Your task to perform on an android device: clear history in the chrome app Image 0: 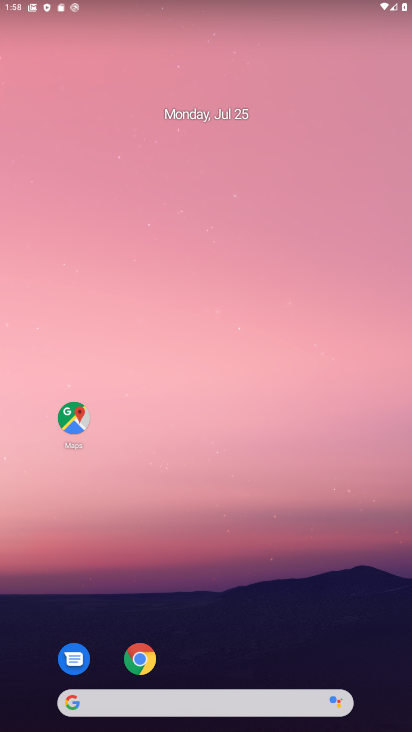
Step 0: drag from (173, 681) to (173, 58)
Your task to perform on an android device: clear history in the chrome app Image 1: 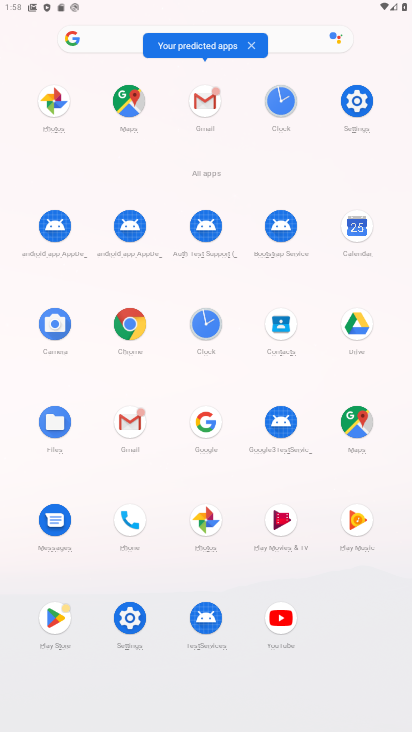
Step 1: click (129, 329)
Your task to perform on an android device: clear history in the chrome app Image 2: 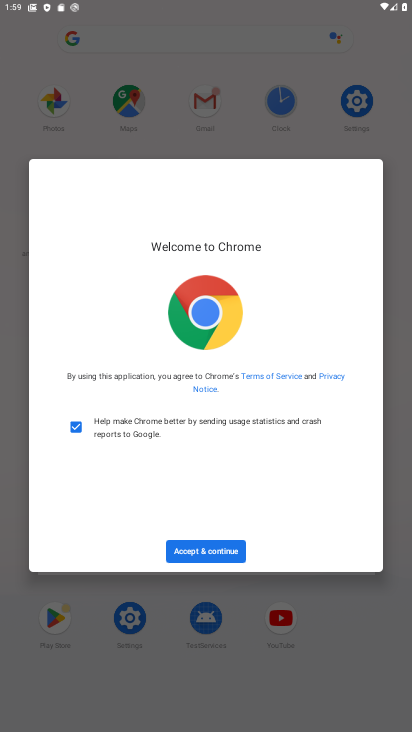
Step 2: click (226, 551)
Your task to perform on an android device: clear history in the chrome app Image 3: 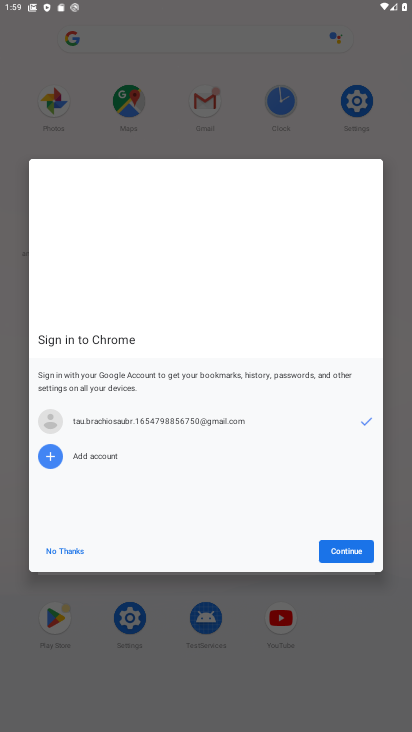
Step 3: click (347, 551)
Your task to perform on an android device: clear history in the chrome app Image 4: 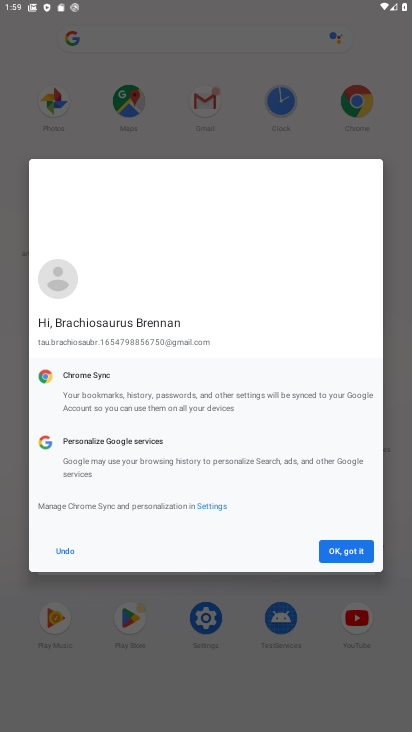
Step 4: click (361, 543)
Your task to perform on an android device: clear history in the chrome app Image 5: 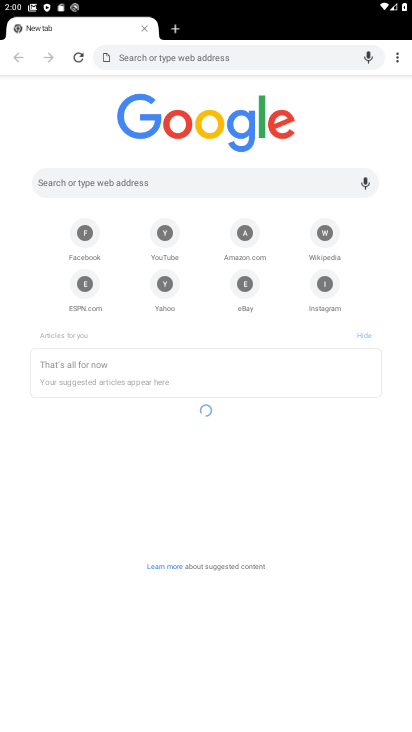
Step 5: click (402, 58)
Your task to perform on an android device: clear history in the chrome app Image 6: 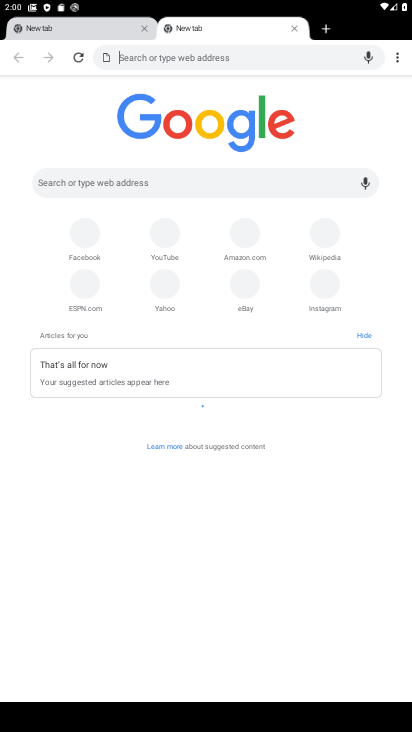
Step 6: click (399, 55)
Your task to perform on an android device: clear history in the chrome app Image 7: 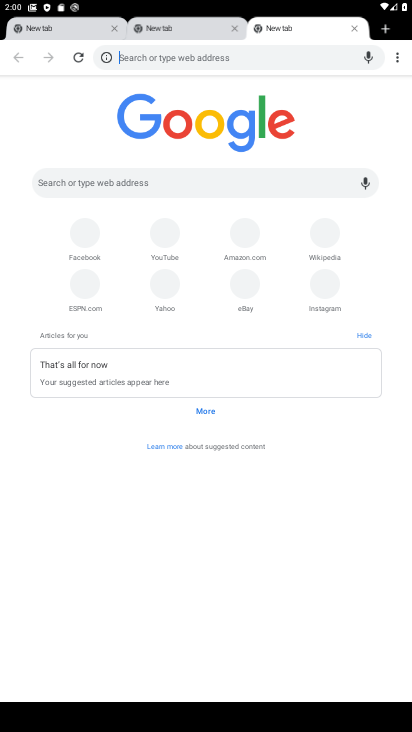
Step 7: click (394, 52)
Your task to perform on an android device: clear history in the chrome app Image 8: 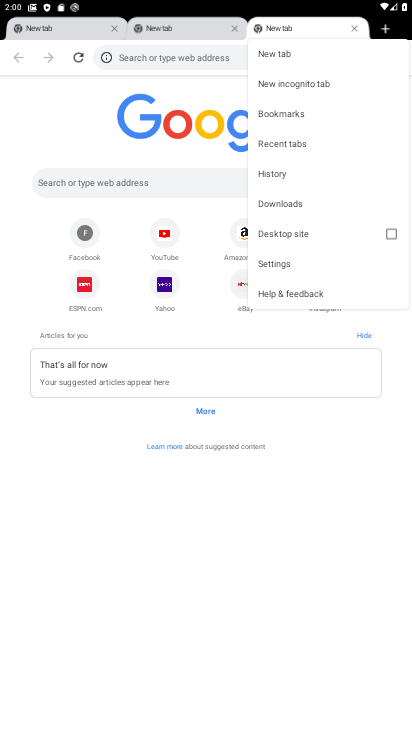
Step 8: click (286, 262)
Your task to perform on an android device: clear history in the chrome app Image 9: 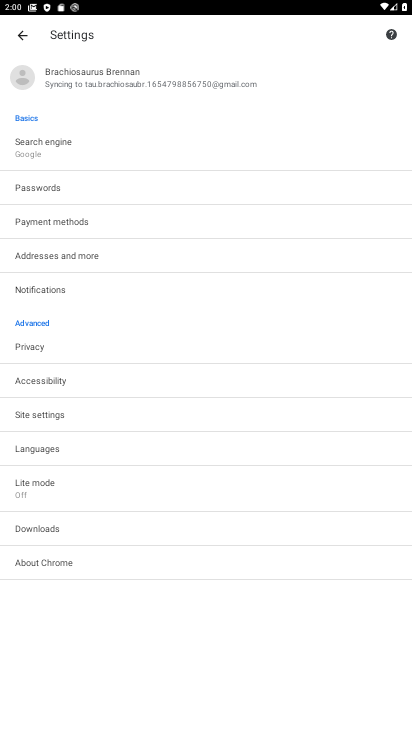
Step 9: click (27, 344)
Your task to perform on an android device: clear history in the chrome app Image 10: 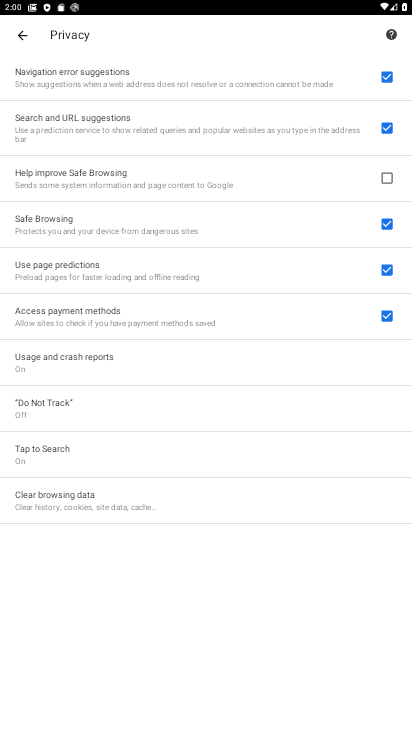
Step 10: click (154, 501)
Your task to perform on an android device: clear history in the chrome app Image 11: 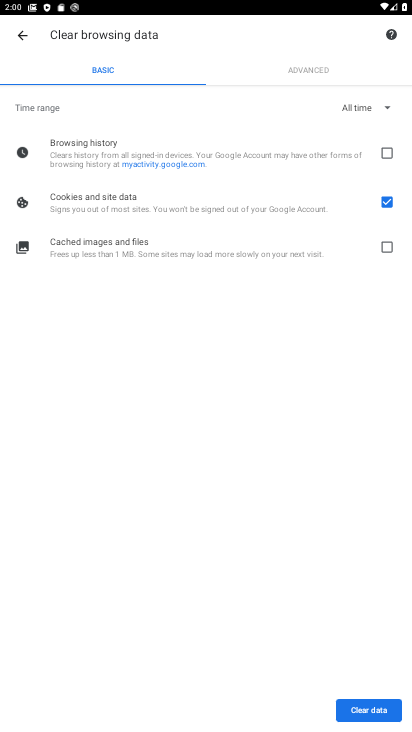
Step 11: click (382, 248)
Your task to perform on an android device: clear history in the chrome app Image 12: 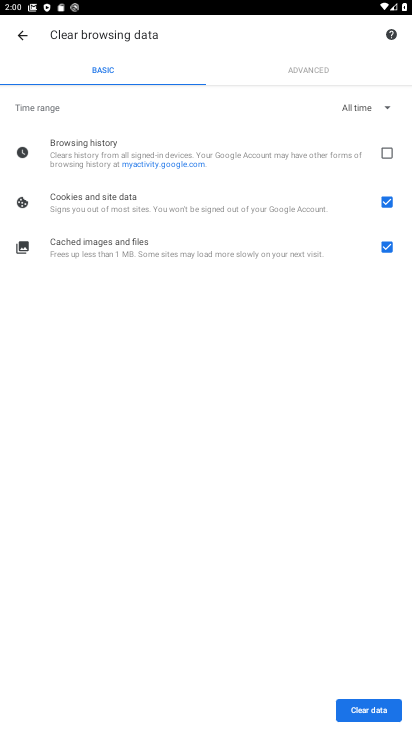
Step 12: click (391, 148)
Your task to perform on an android device: clear history in the chrome app Image 13: 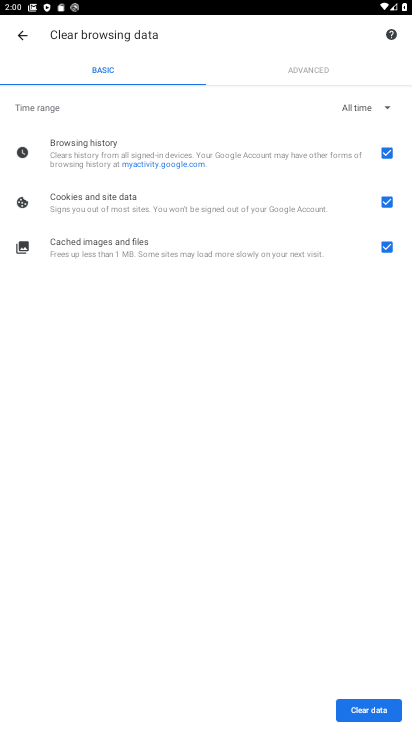
Step 13: click (391, 709)
Your task to perform on an android device: clear history in the chrome app Image 14: 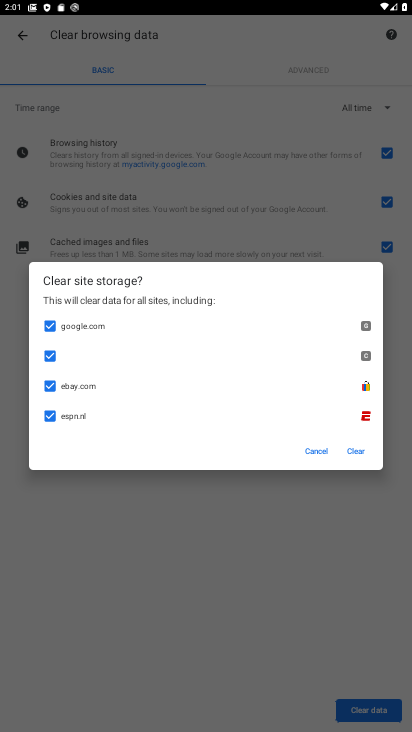
Step 14: click (357, 449)
Your task to perform on an android device: clear history in the chrome app Image 15: 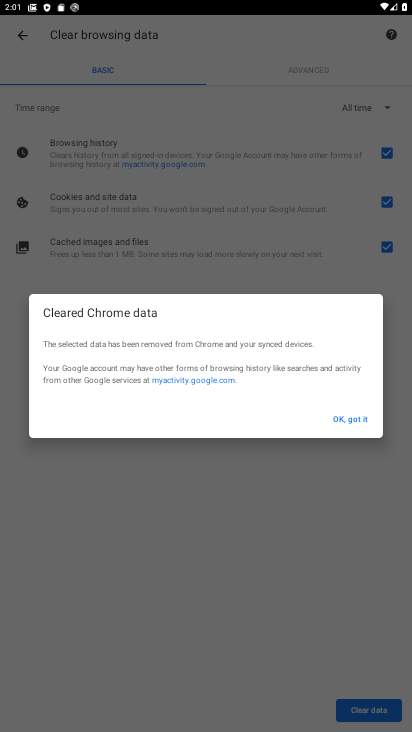
Step 15: click (352, 419)
Your task to perform on an android device: clear history in the chrome app Image 16: 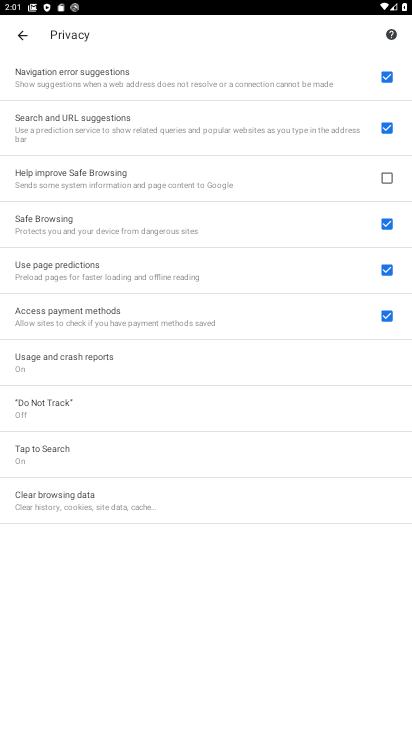
Step 16: task complete